Your task to perform on an android device: find snoozed emails in the gmail app Image 0: 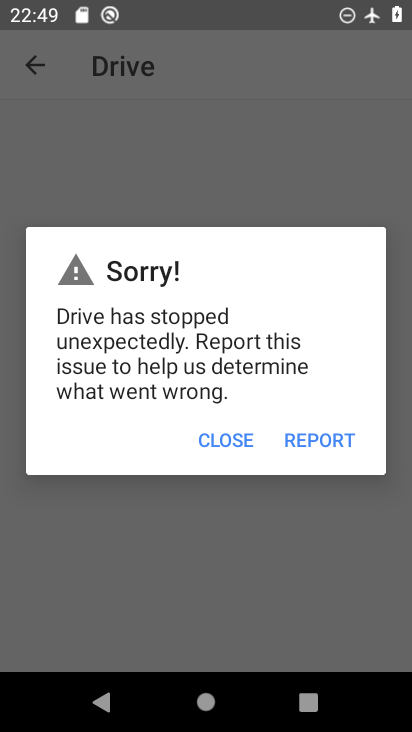
Step 0: press home button
Your task to perform on an android device: find snoozed emails in the gmail app Image 1: 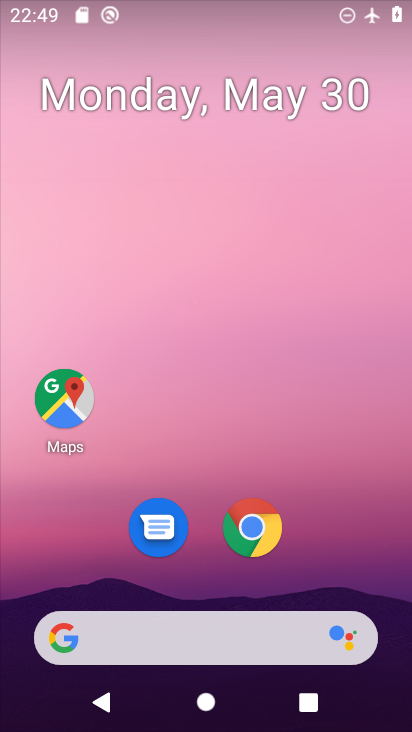
Step 1: drag from (340, 574) to (340, 189)
Your task to perform on an android device: find snoozed emails in the gmail app Image 2: 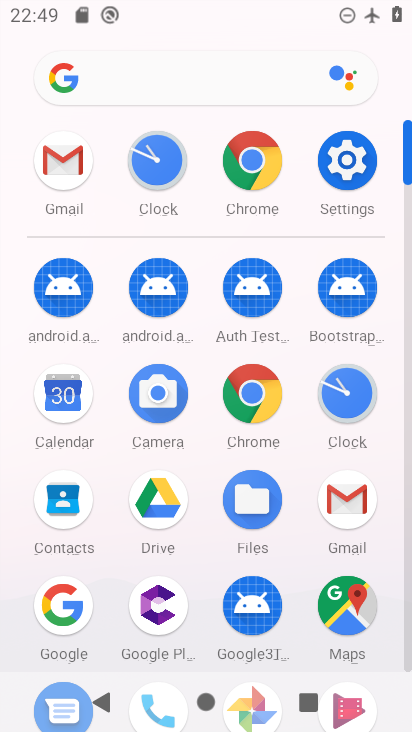
Step 2: click (338, 502)
Your task to perform on an android device: find snoozed emails in the gmail app Image 3: 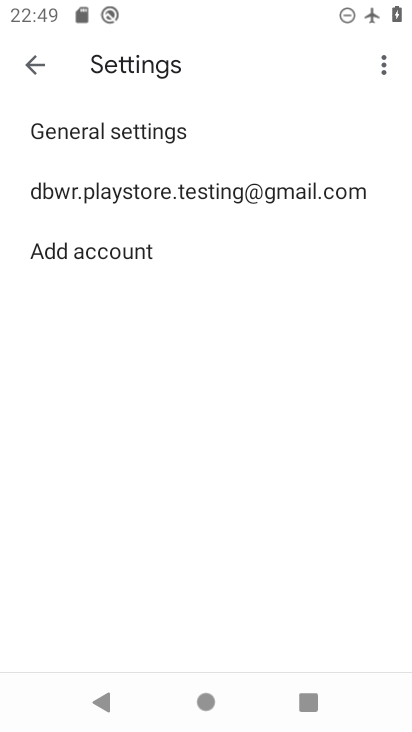
Step 3: click (34, 57)
Your task to perform on an android device: find snoozed emails in the gmail app Image 4: 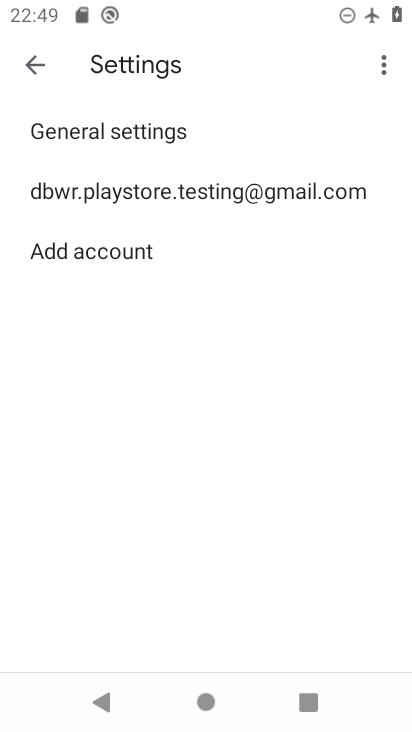
Step 4: click (39, 62)
Your task to perform on an android device: find snoozed emails in the gmail app Image 5: 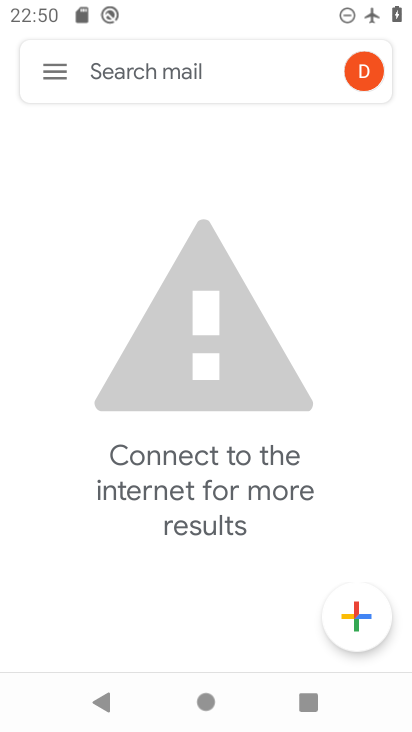
Step 5: click (57, 67)
Your task to perform on an android device: find snoozed emails in the gmail app Image 6: 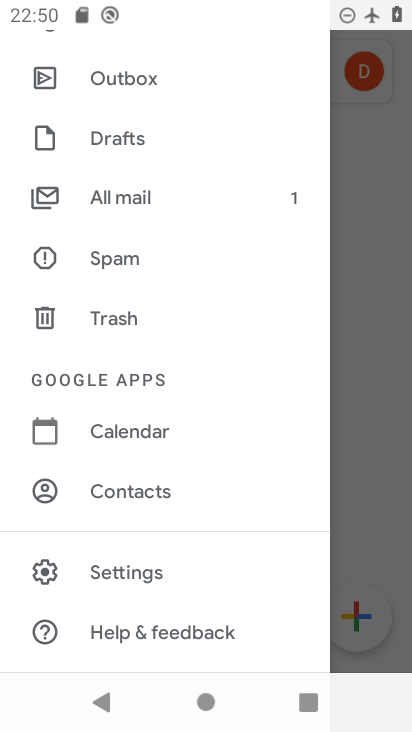
Step 6: drag from (143, 115) to (174, 388)
Your task to perform on an android device: find snoozed emails in the gmail app Image 7: 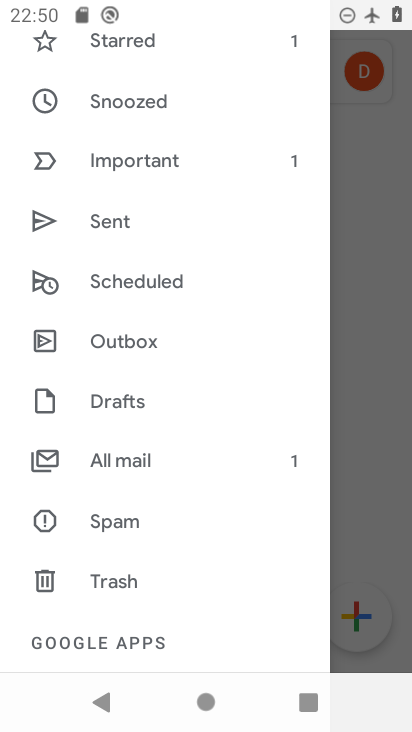
Step 7: click (143, 110)
Your task to perform on an android device: find snoozed emails in the gmail app Image 8: 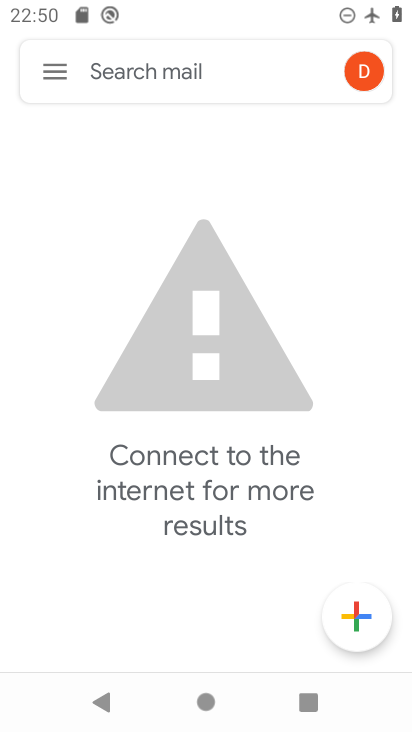
Step 8: click (52, 73)
Your task to perform on an android device: find snoozed emails in the gmail app Image 9: 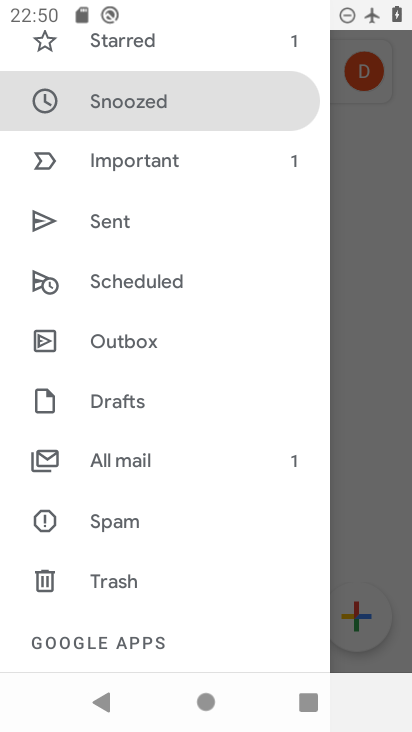
Step 9: task complete